Your task to perform on an android device: Search for usb-b on bestbuy, select the first entry, and add it to the cart. Image 0: 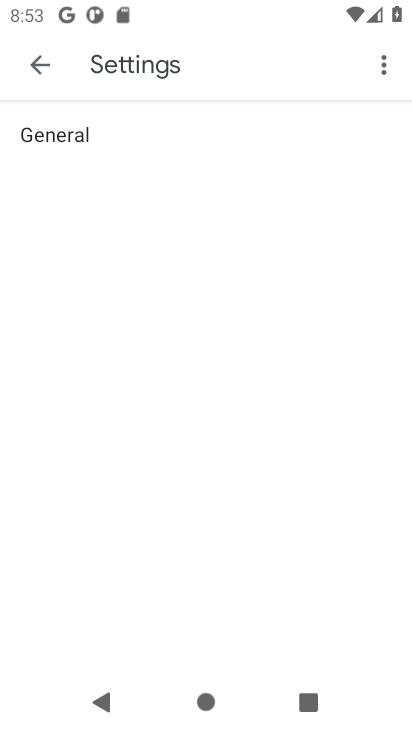
Step 0: press home button
Your task to perform on an android device: Search for usb-b on bestbuy, select the first entry, and add it to the cart. Image 1: 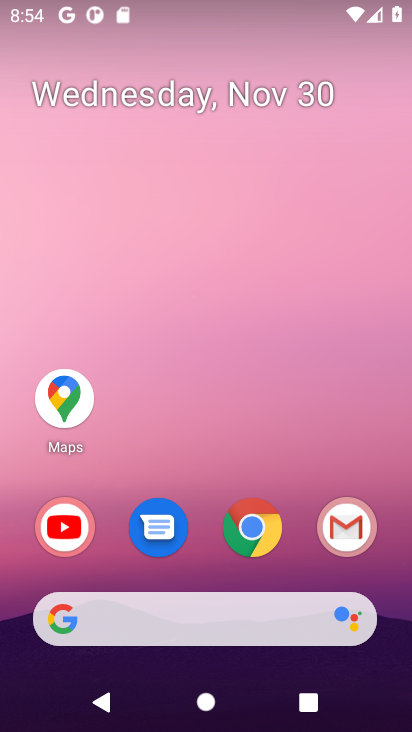
Step 1: click (243, 526)
Your task to perform on an android device: Search for usb-b on bestbuy, select the first entry, and add it to the cart. Image 2: 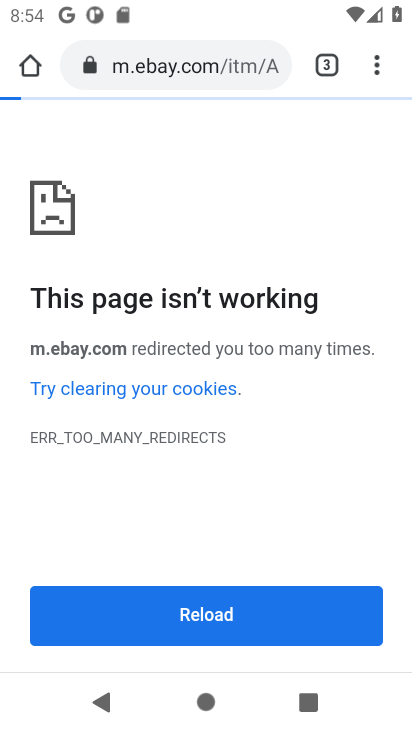
Step 2: click (233, 53)
Your task to perform on an android device: Search for usb-b on bestbuy, select the first entry, and add it to the cart. Image 3: 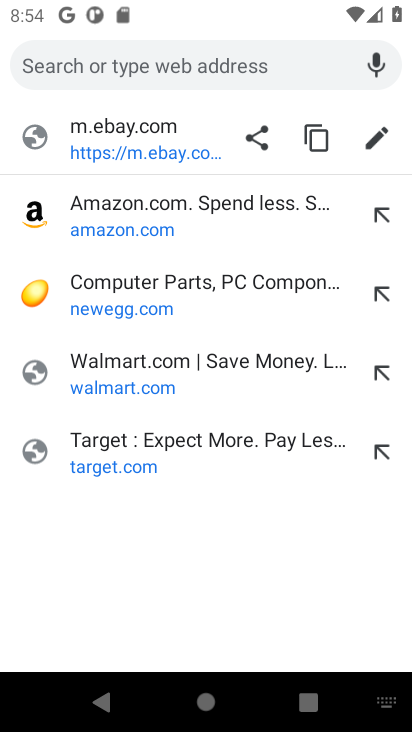
Step 3: type "bestbuy"
Your task to perform on an android device: Search for usb-b on bestbuy, select the first entry, and add it to the cart. Image 4: 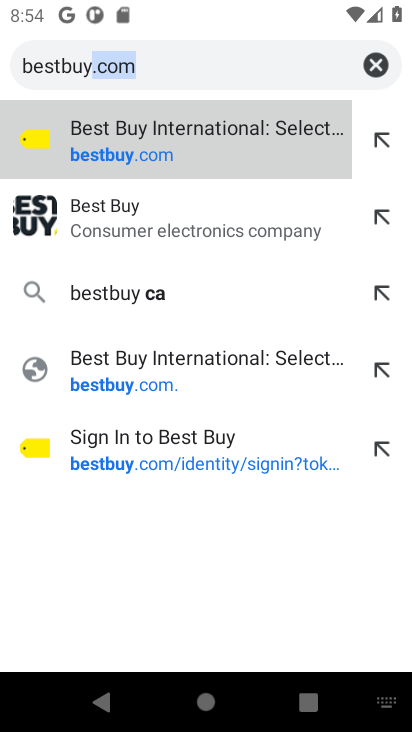
Step 4: press enter
Your task to perform on an android device: Search for usb-b on bestbuy, select the first entry, and add it to the cart. Image 5: 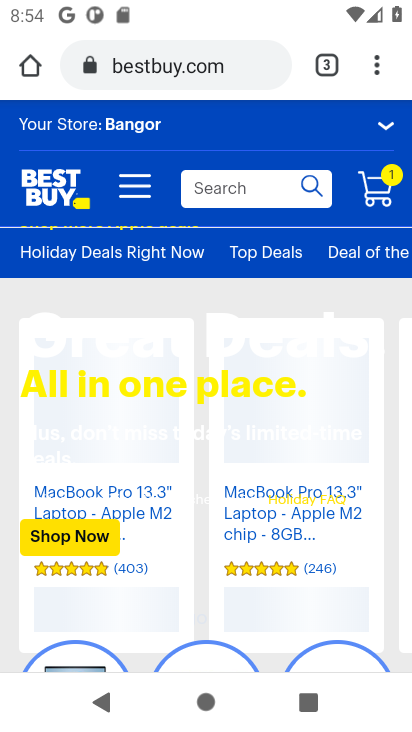
Step 5: click (245, 185)
Your task to perform on an android device: Search for usb-b on bestbuy, select the first entry, and add it to the cart. Image 6: 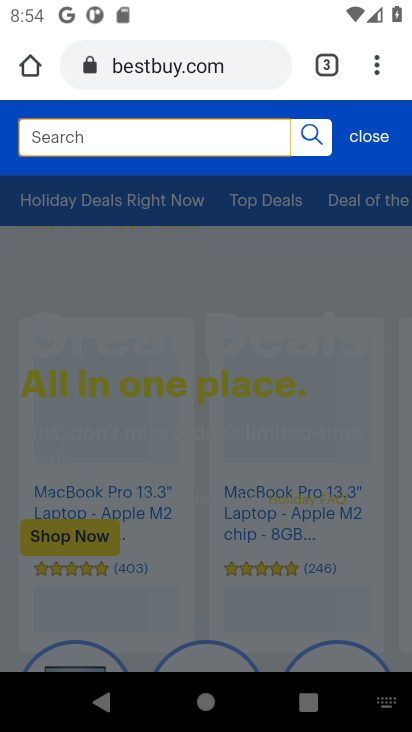
Step 6: type "usb-b"
Your task to perform on an android device: Search for usb-b on bestbuy, select the first entry, and add it to the cart. Image 7: 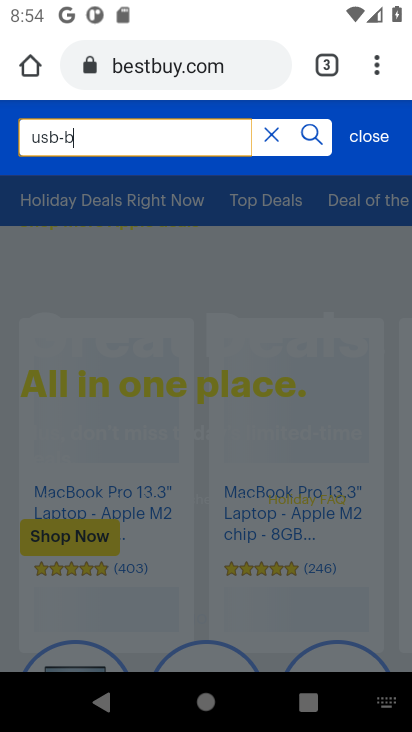
Step 7: press enter
Your task to perform on an android device: Search for usb-b on bestbuy, select the first entry, and add it to the cart. Image 8: 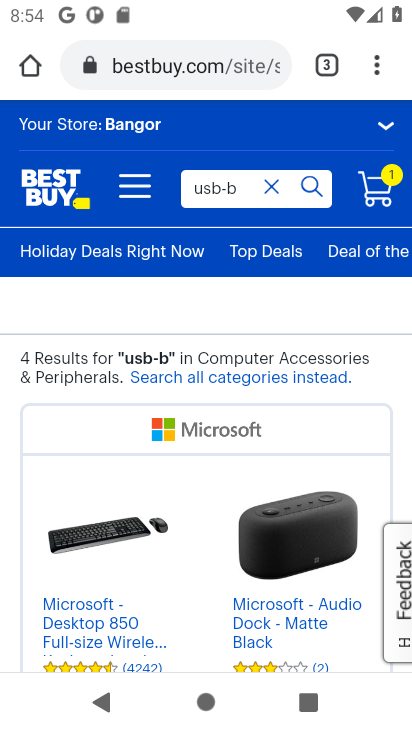
Step 8: task complete